Your task to perform on an android device: Search for "acer predator" on bestbuy.com, select the first entry, and add it to the cart. Image 0: 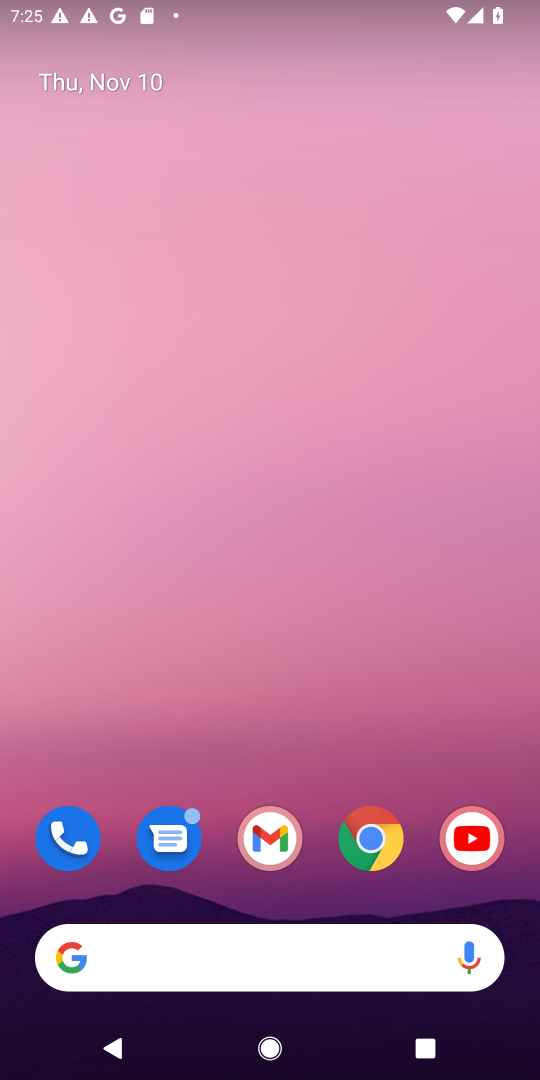
Step 0: drag from (321, 907) to (304, 144)
Your task to perform on an android device: Search for "acer predator" on bestbuy.com, select the first entry, and add it to the cart. Image 1: 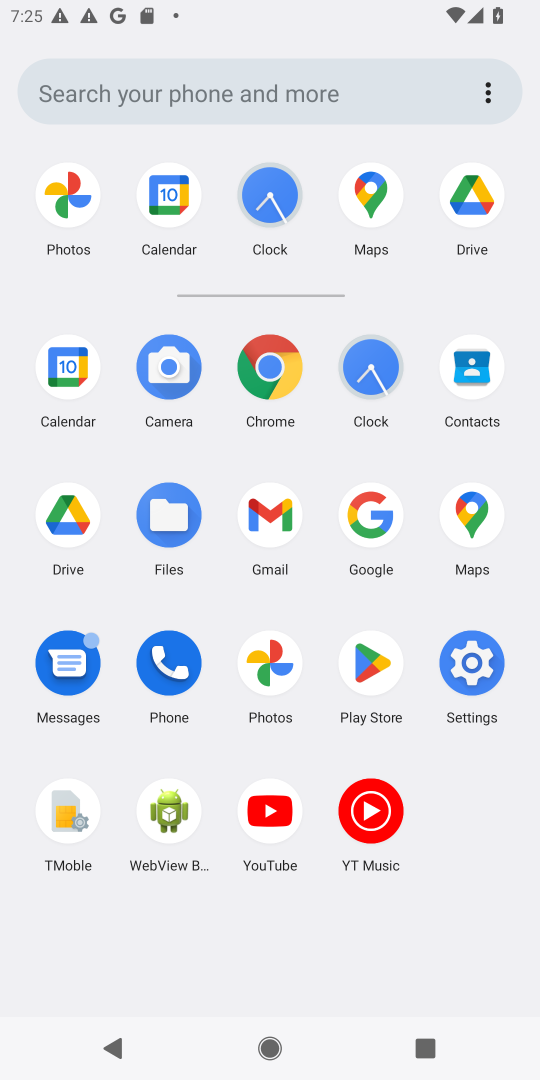
Step 1: click (264, 370)
Your task to perform on an android device: Search for "acer predator" on bestbuy.com, select the first entry, and add it to the cart. Image 2: 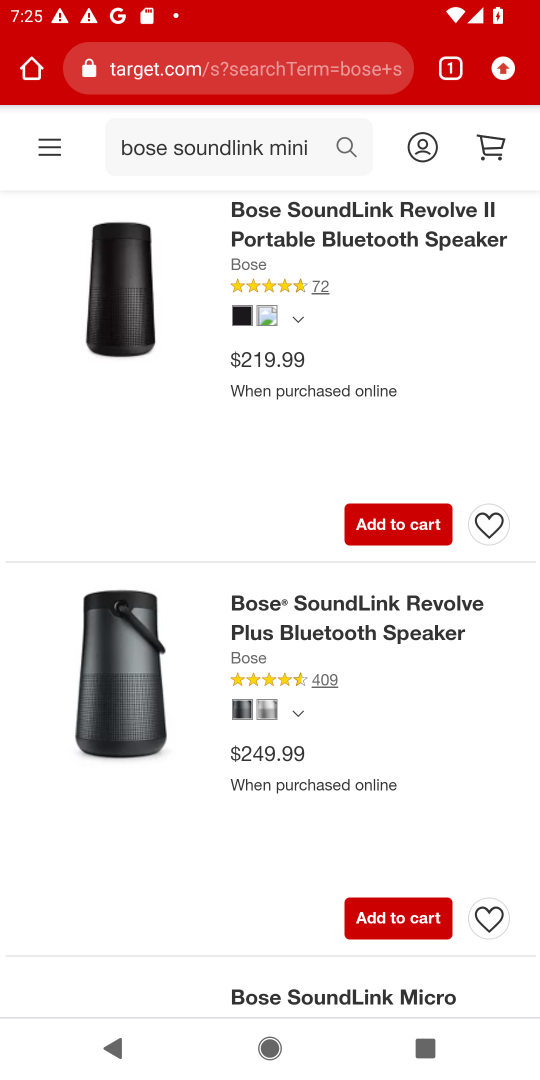
Step 2: click (233, 82)
Your task to perform on an android device: Search for "acer predator" on bestbuy.com, select the first entry, and add it to the cart. Image 3: 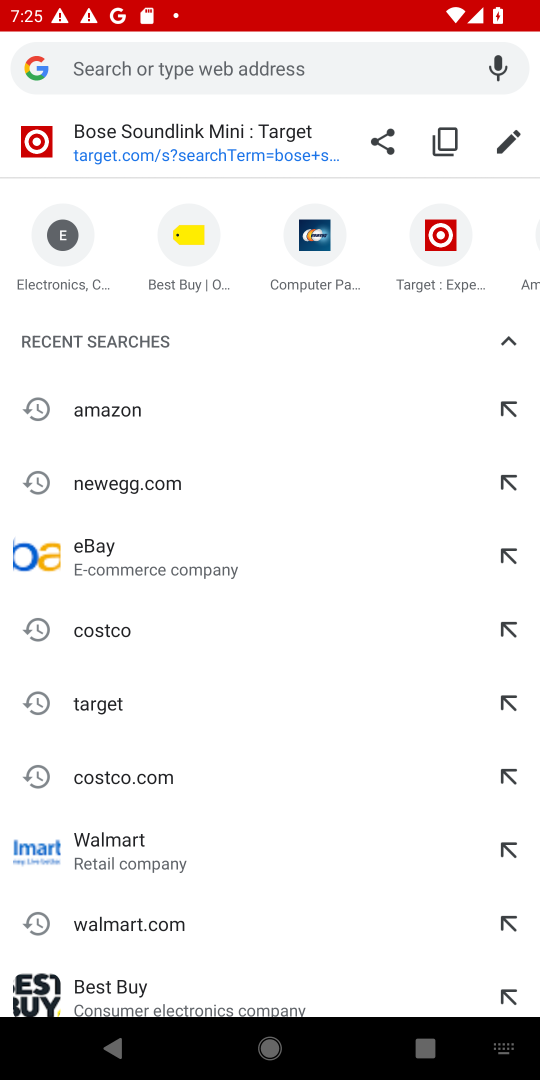
Step 3: type "bestbuy.com"
Your task to perform on an android device: Search for "acer predator" on bestbuy.com, select the first entry, and add it to the cart. Image 4: 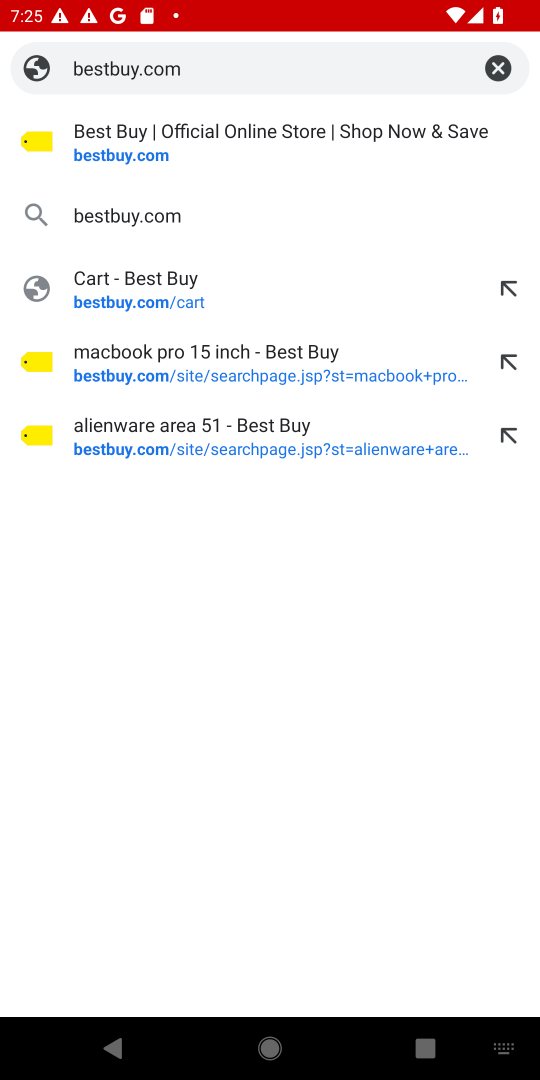
Step 4: press enter
Your task to perform on an android device: Search for "acer predator" on bestbuy.com, select the first entry, and add it to the cart. Image 5: 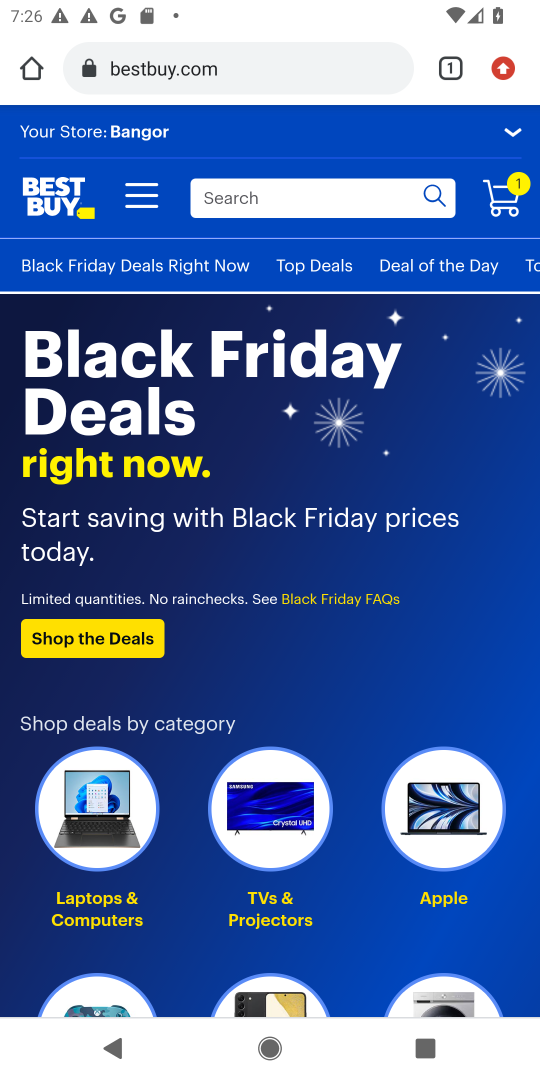
Step 5: click (309, 200)
Your task to perform on an android device: Search for "acer predator" on bestbuy.com, select the first entry, and add it to the cart. Image 6: 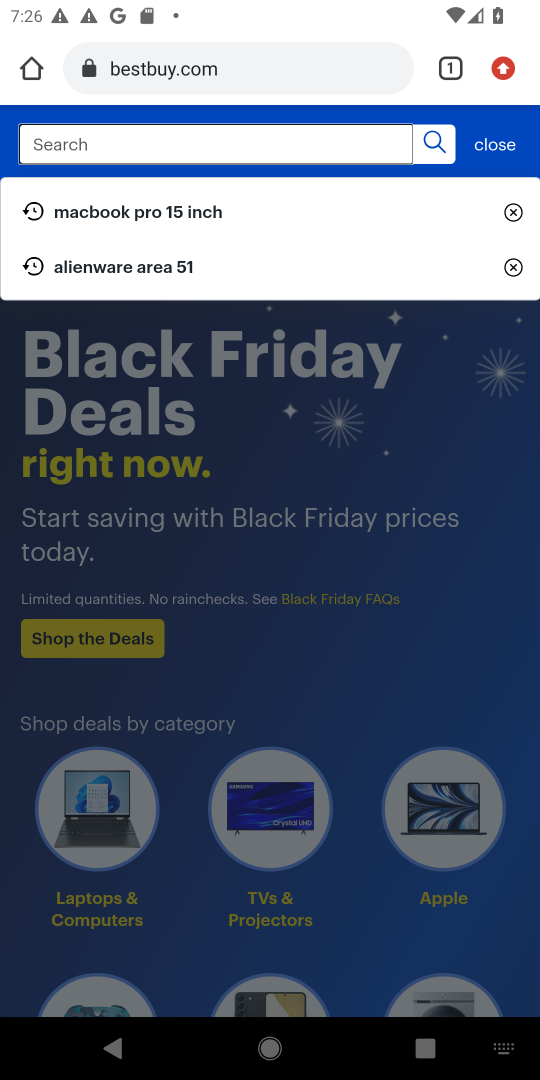
Step 6: type "acer predator"
Your task to perform on an android device: Search for "acer predator" on bestbuy.com, select the first entry, and add it to the cart. Image 7: 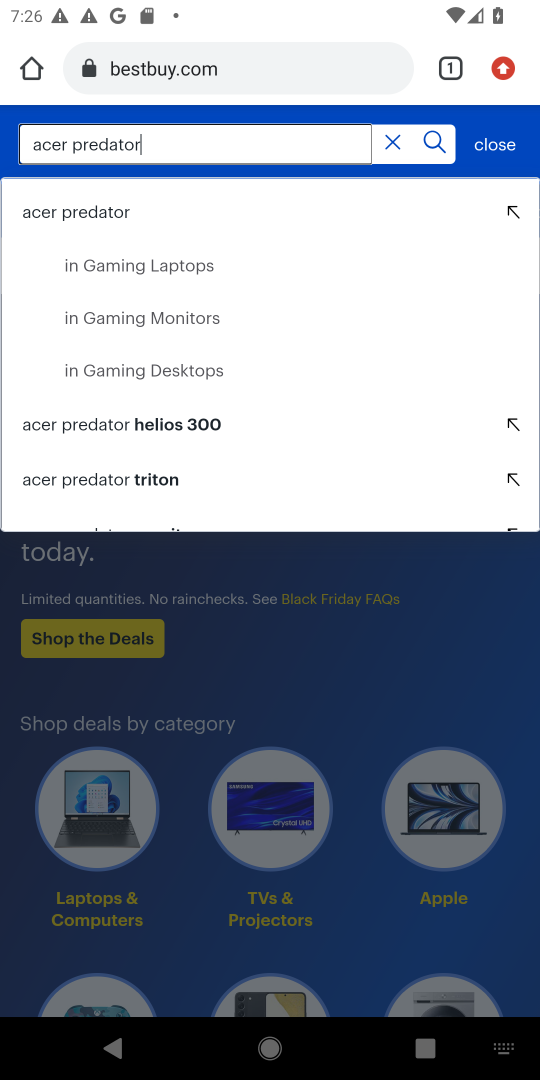
Step 7: press enter
Your task to perform on an android device: Search for "acer predator" on bestbuy.com, select the first entry, and add it to the cart. Image 8: 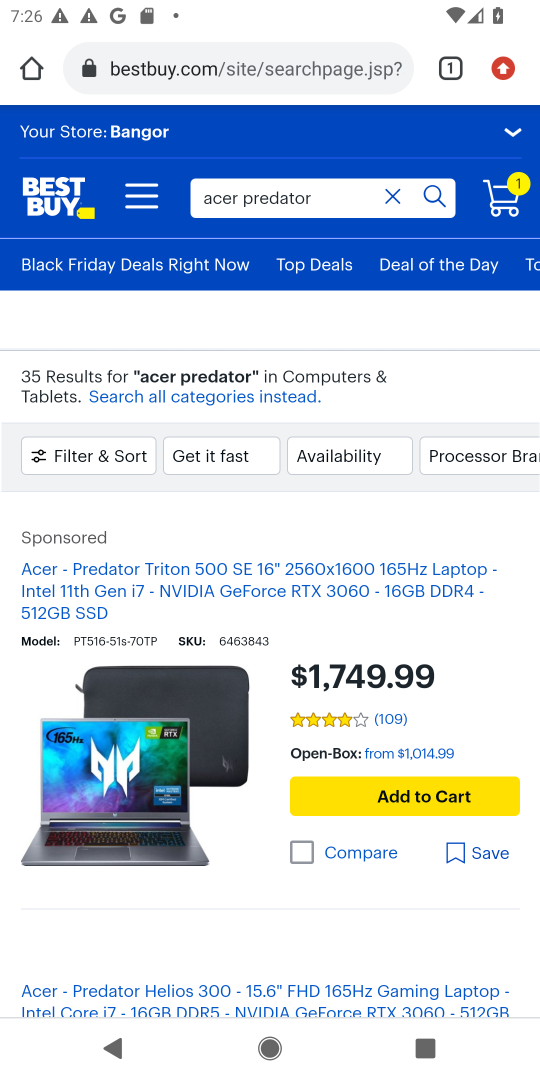
Step 8: drag from (246, 843) to (216, 53)
Your task to perform on an android device: Search for "acer predator" on bestbuy.com, select the first entry, and add it to the cart. Image 9: 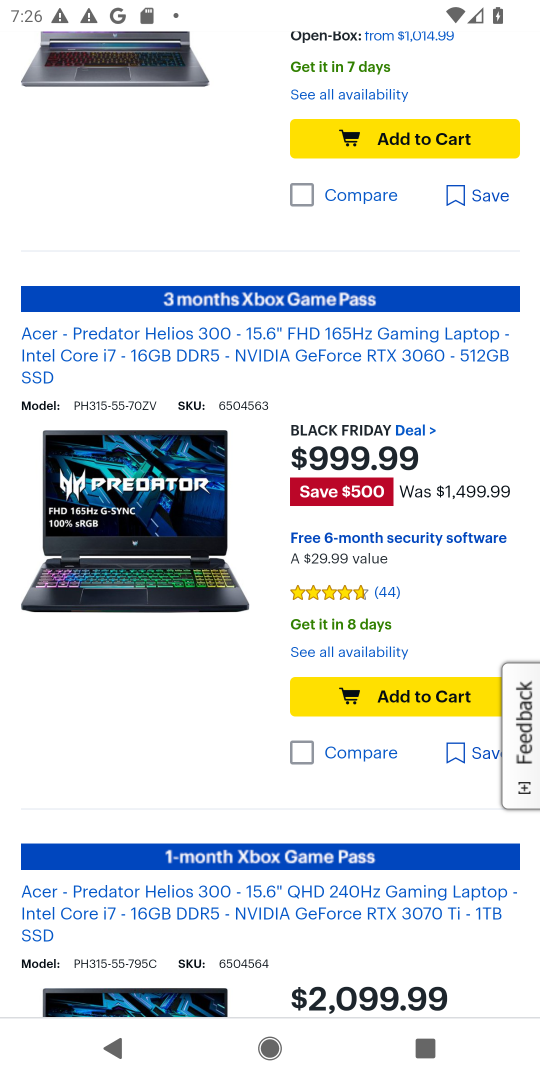
Step 9: click (429, 699)
Your task to perform on an android device: Search for "acer predator" on bestbuy.com, select the first entry, and add it to the cart. Image 10: 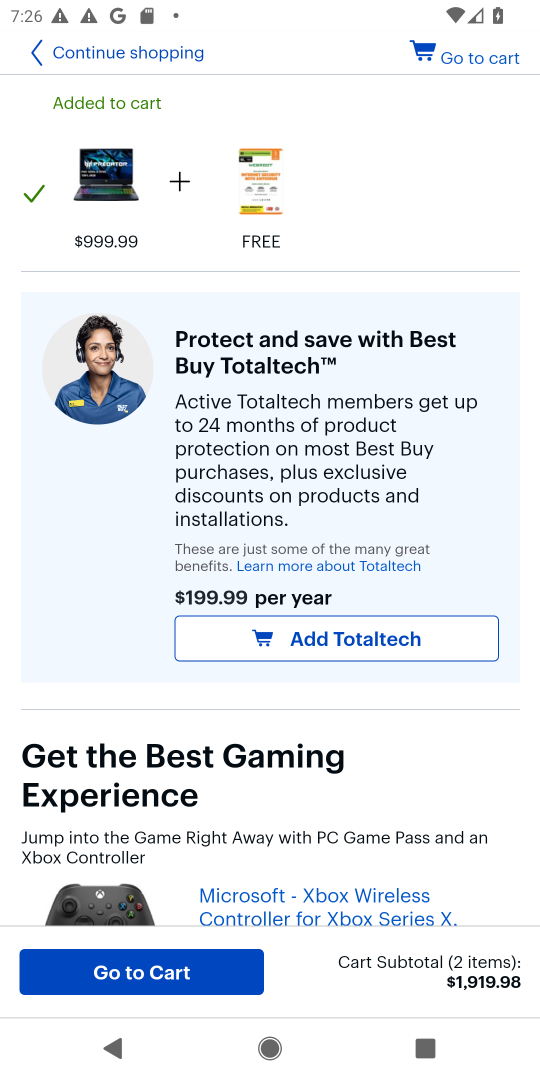
Step 10: task complete